Your task to perform on an android device: empty trash in google photos Image 0: 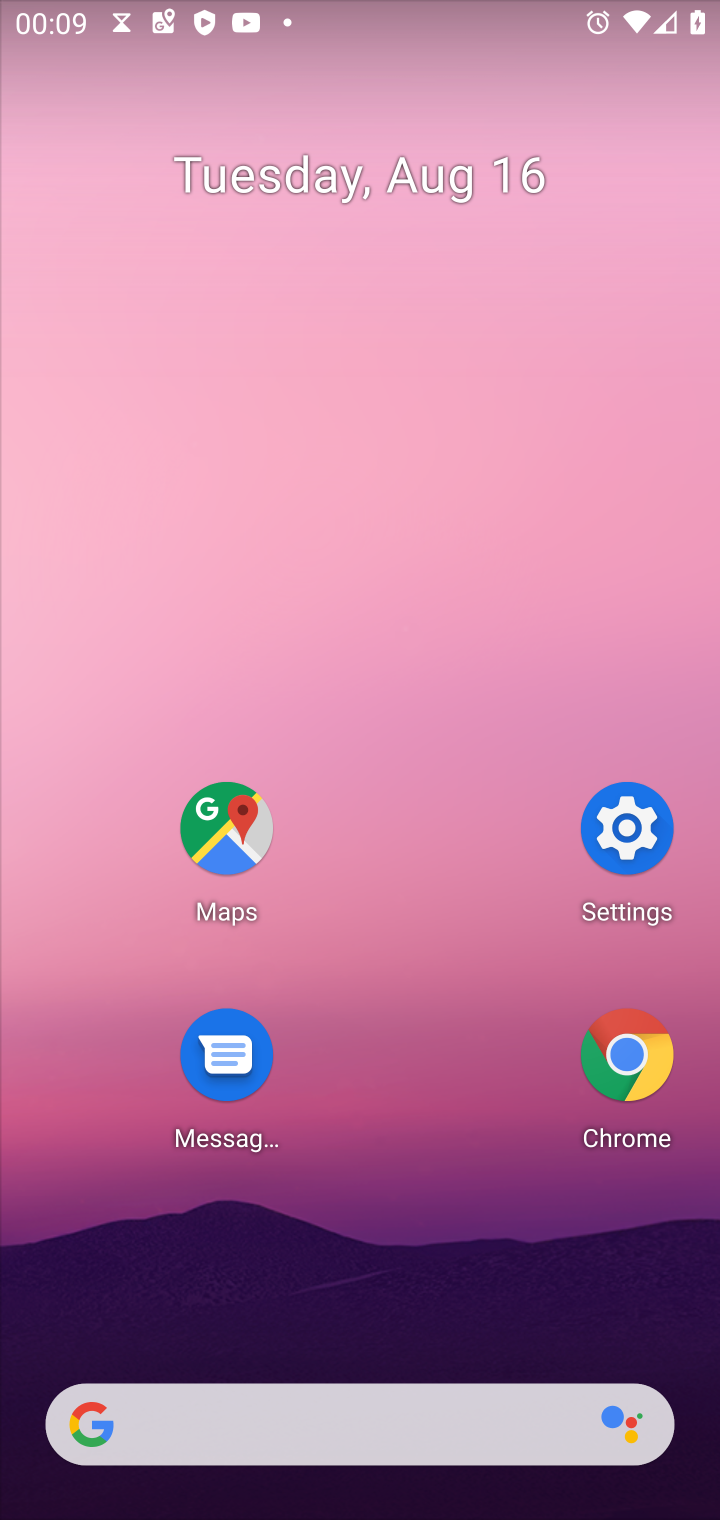
Step 0: press home button
Your task to perform on an android device: empty trash in google photos Image 1: 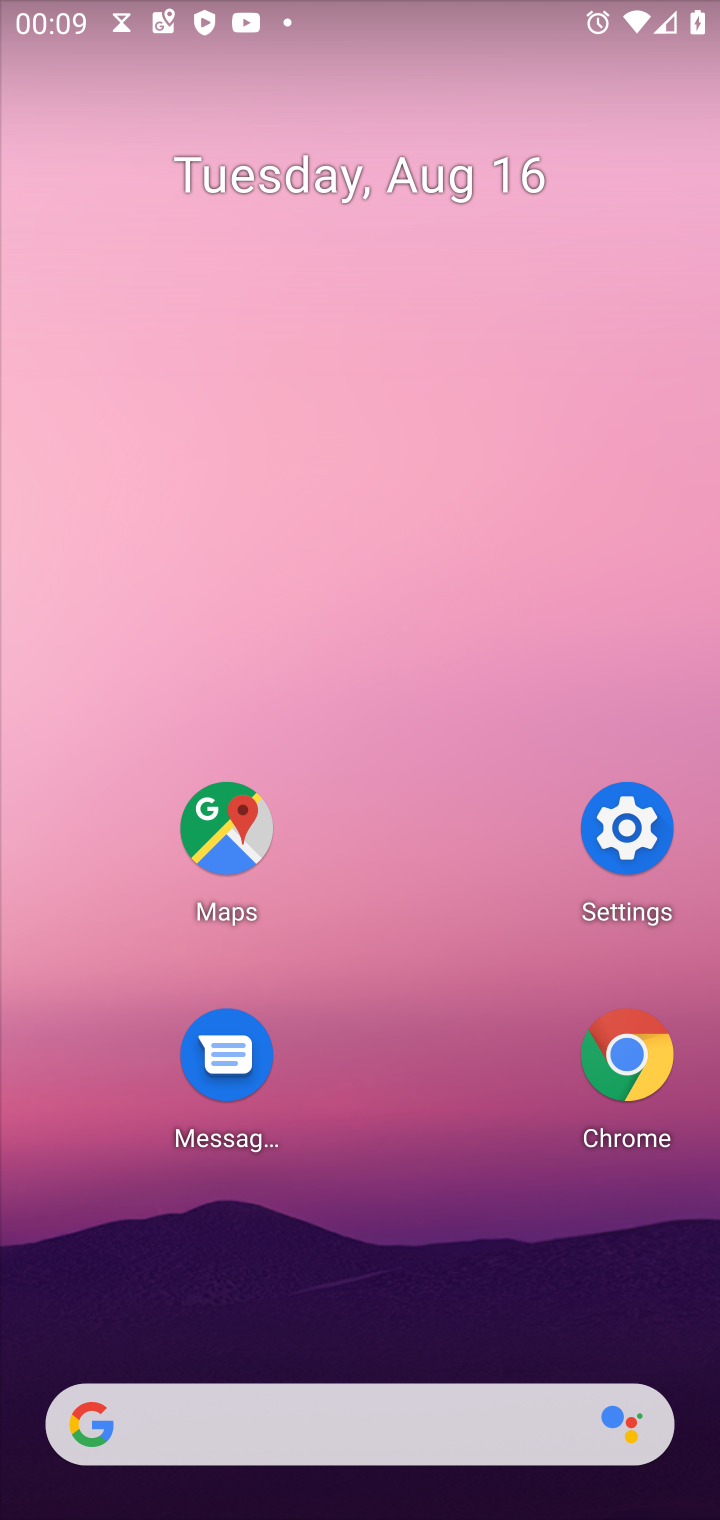
Step 1: drag from (376, 1268) to (562, 123)
Your task to perform on an android device: empty trash in google photos Image 2: 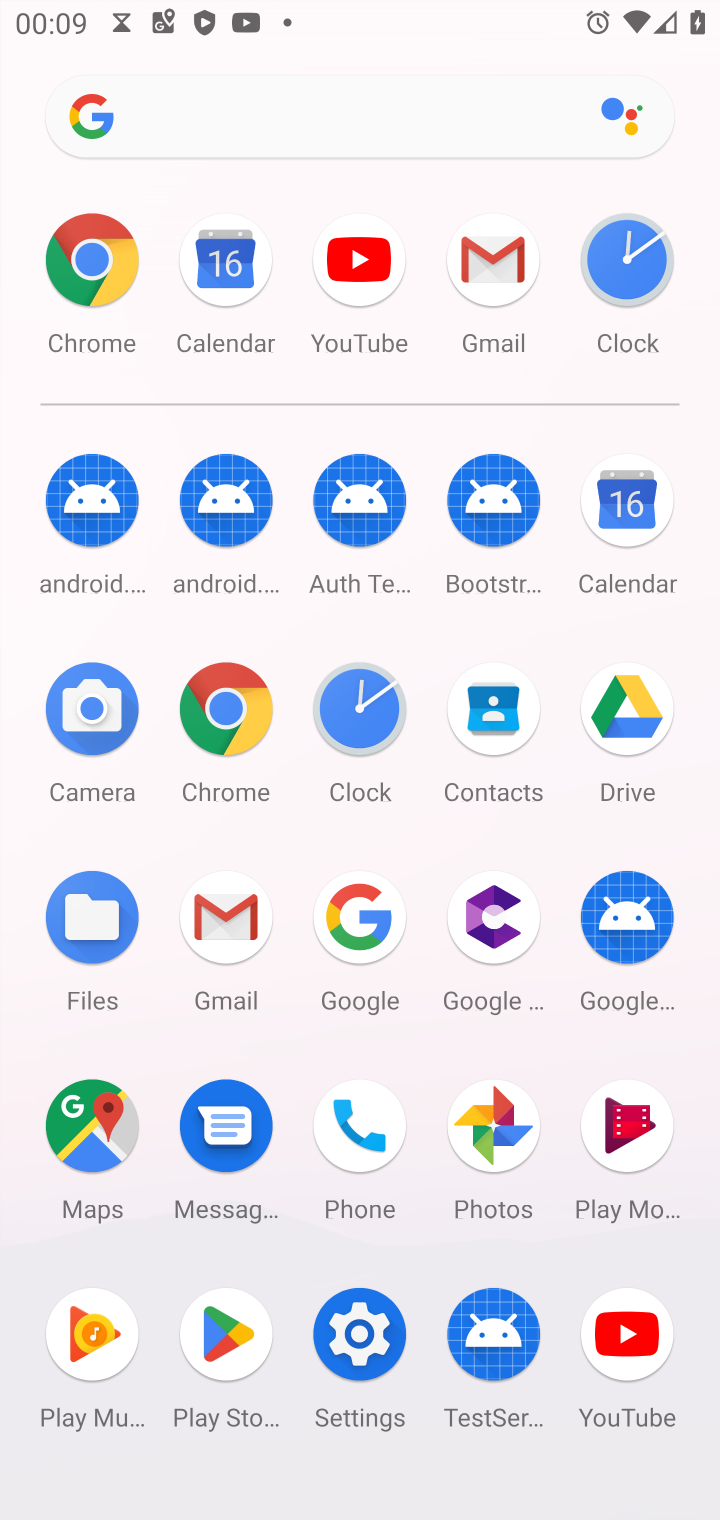
Step 2: click (493, 1127)
Your task to perform on an android device: empty trash in google photos Image 3: 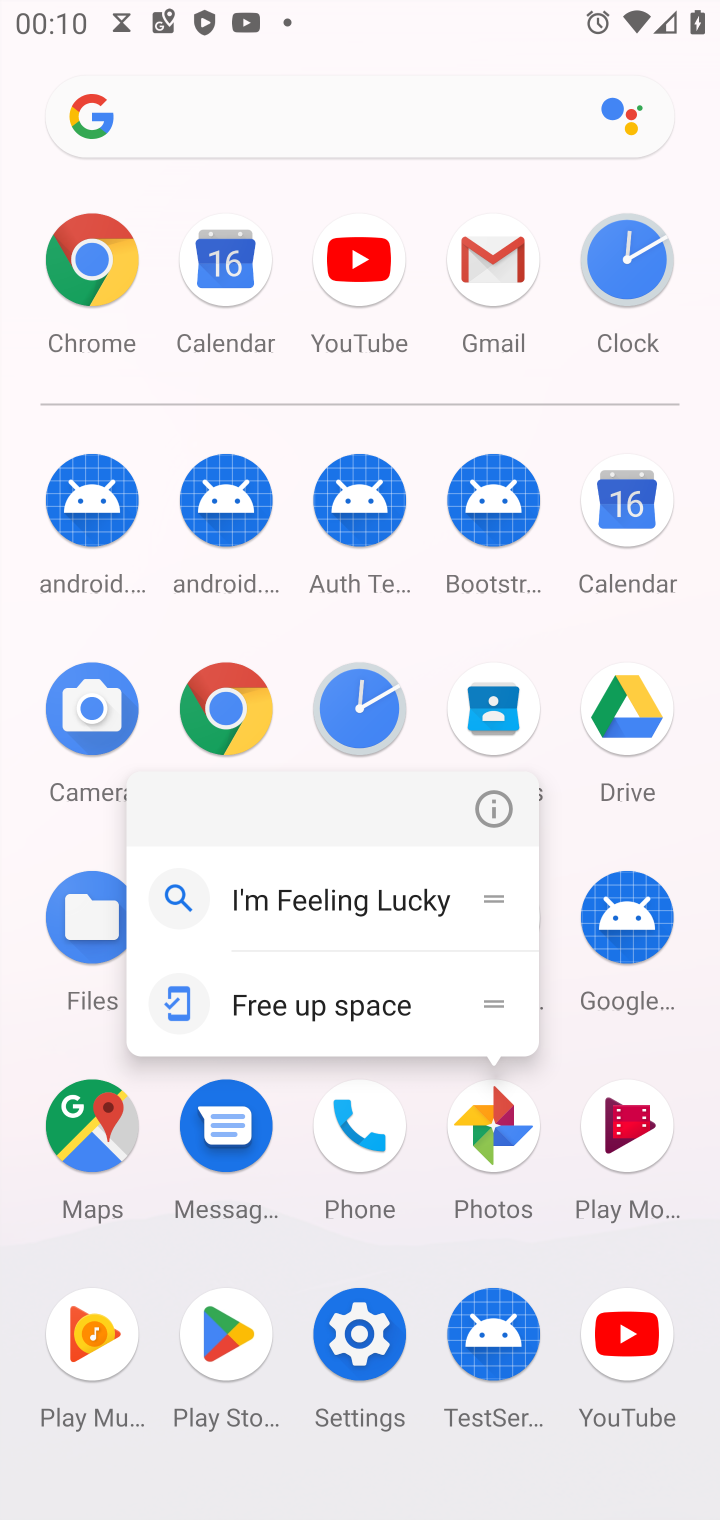
Step 3: click (493, 1130)
Your task to perform on an android device: empty trash in google photos Image 4: 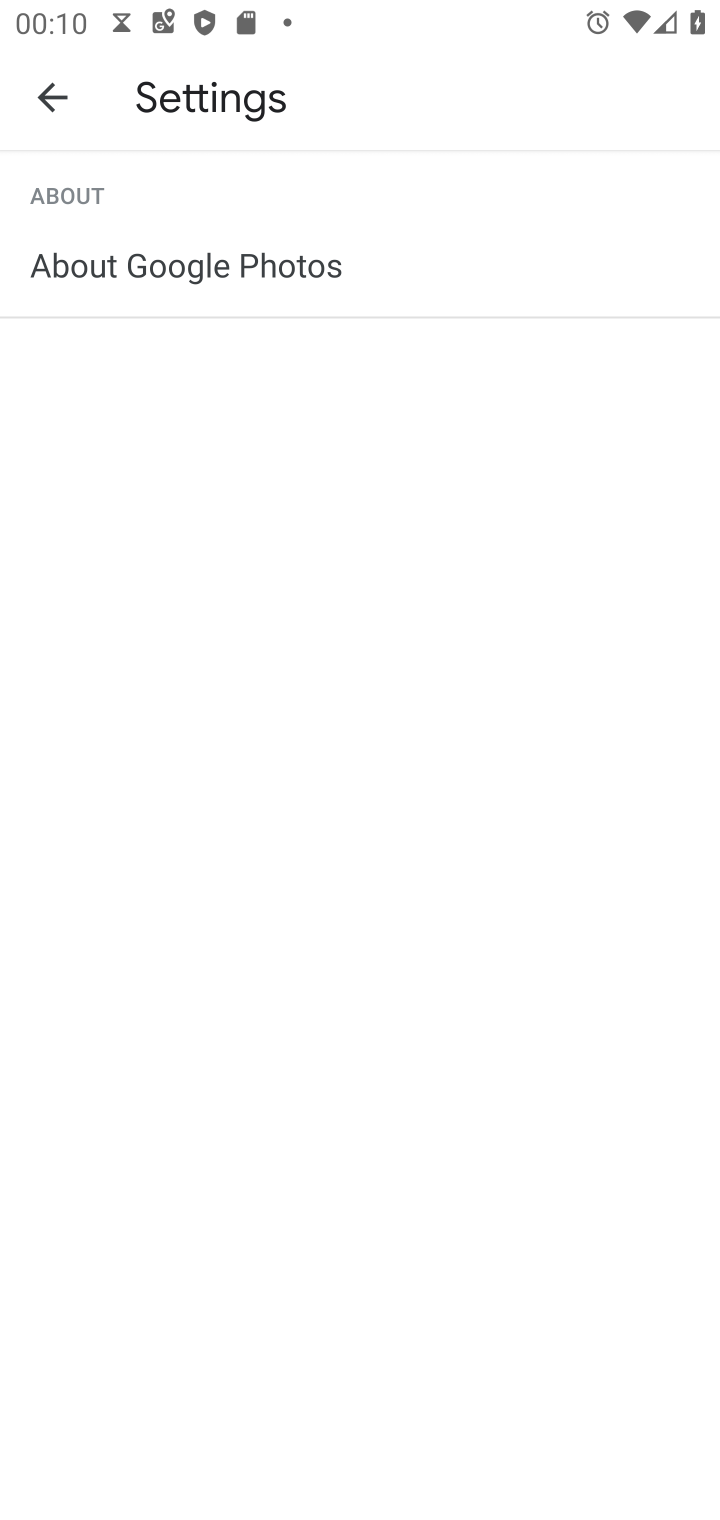
Step 4: press back button
Your task to perform on an android device: empty trash in google photos Image 5: 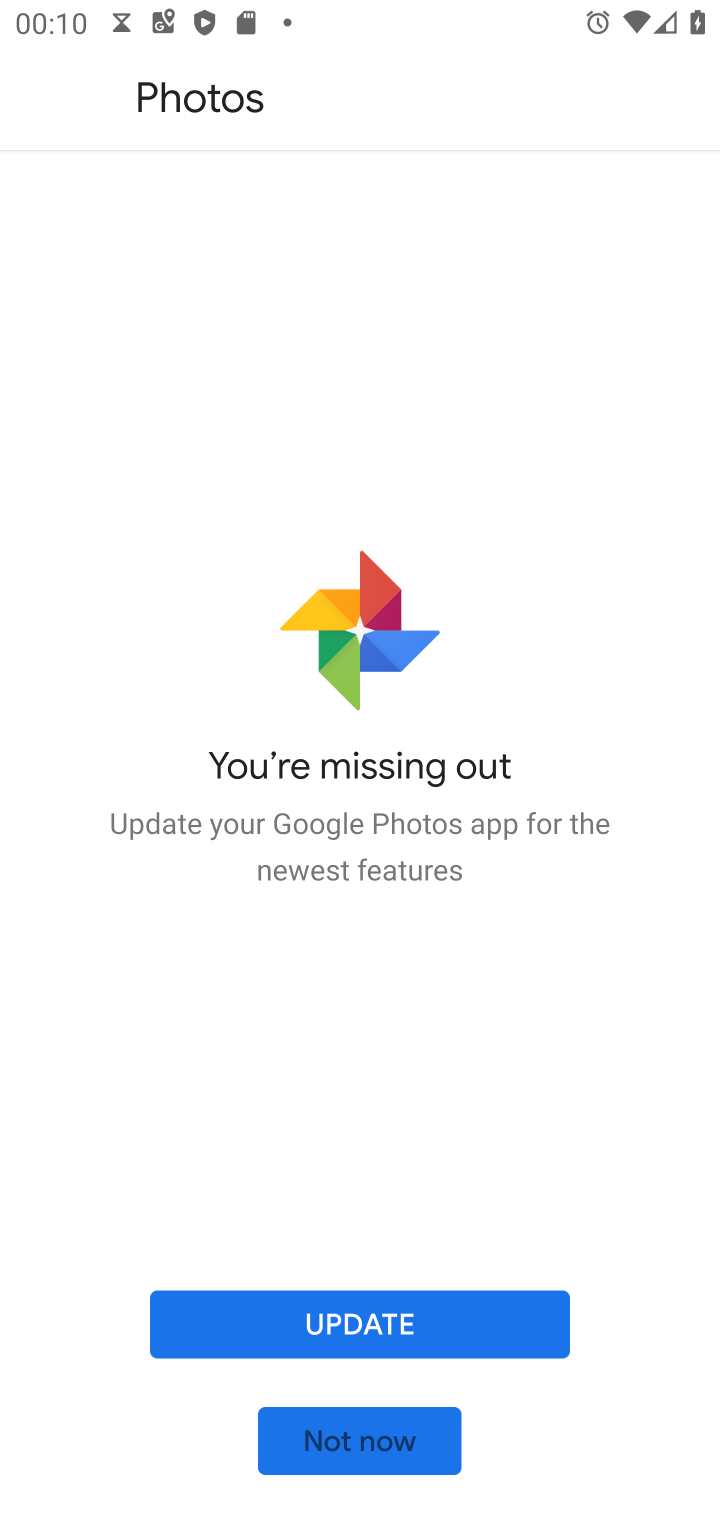
Step 5: click (346, 1317)
Your task to perform on an android device: empty trash in google photos Image 6: 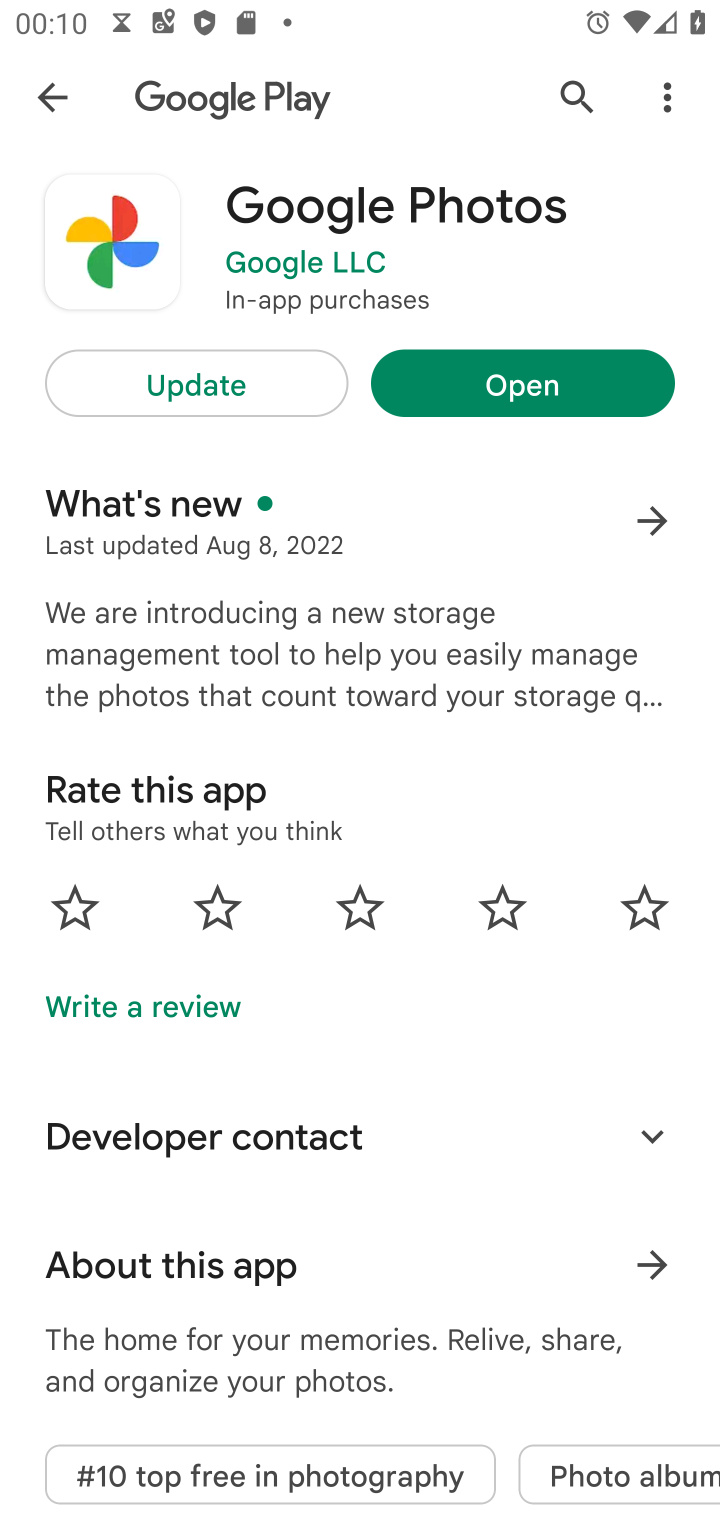
Step 6: click (222, 381)
Your task to perform on an android device: empty trash in google photos Image 7: 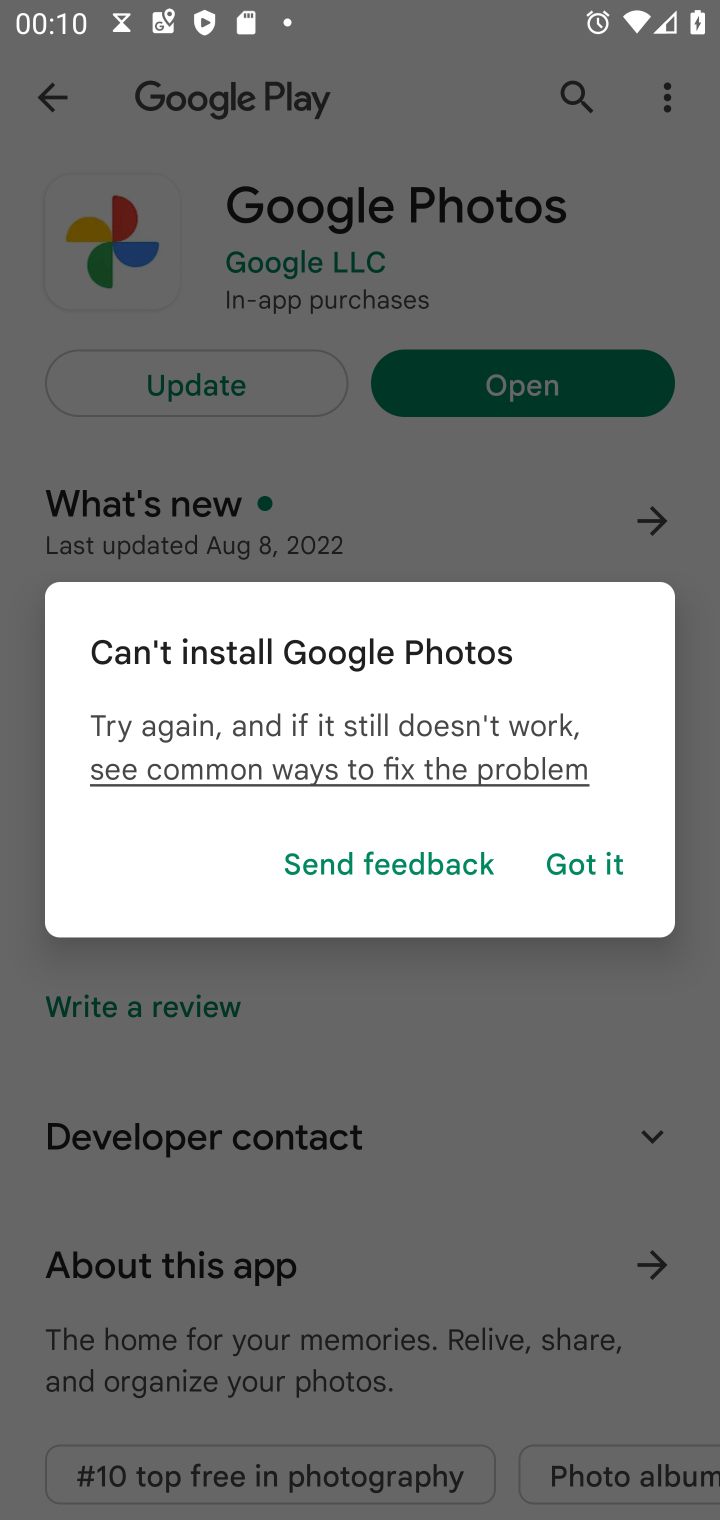
Step 7: click (562, 864)
Your task to perform on an android device: empty trash in google photos Image 8: 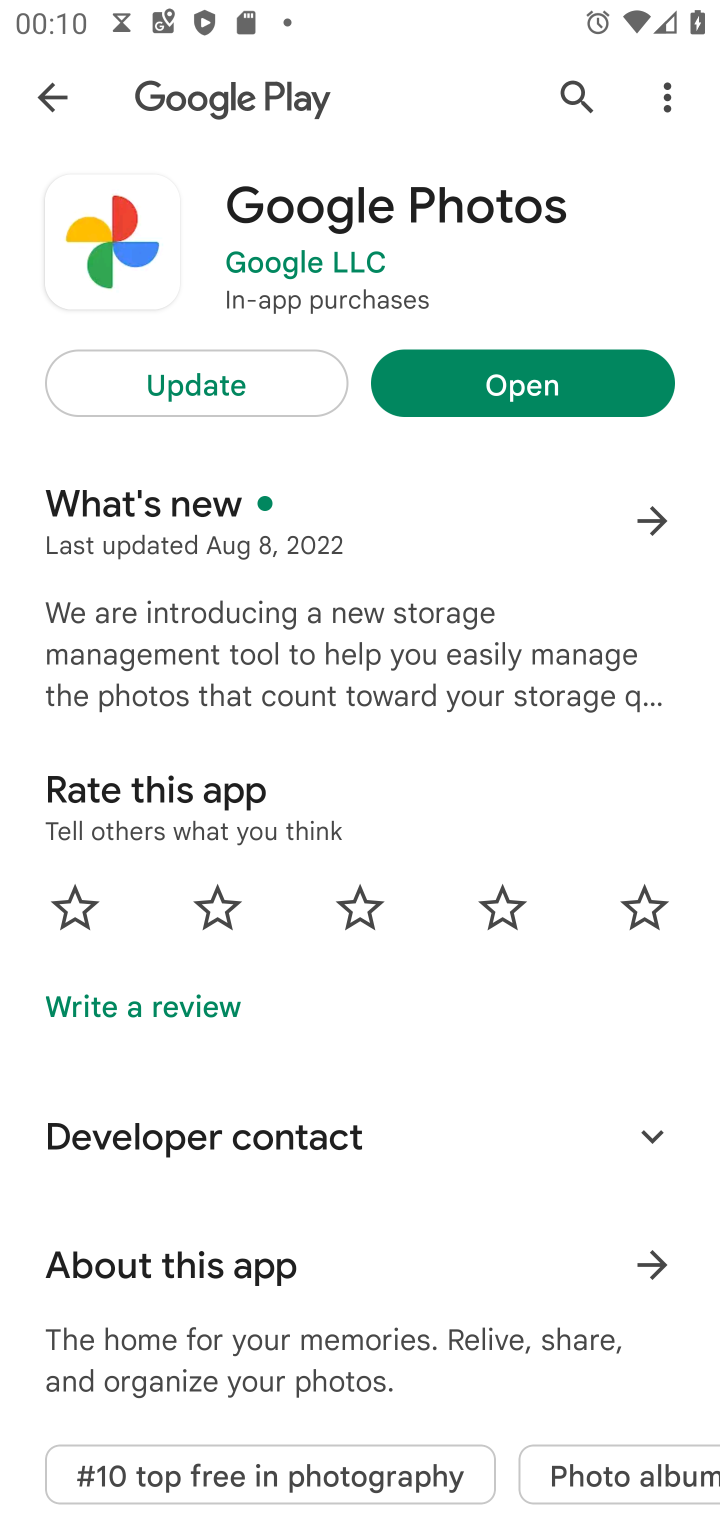
Step 8: click (555, 373)
Your task to perform on an android device: empty trash in google photos Image 9: 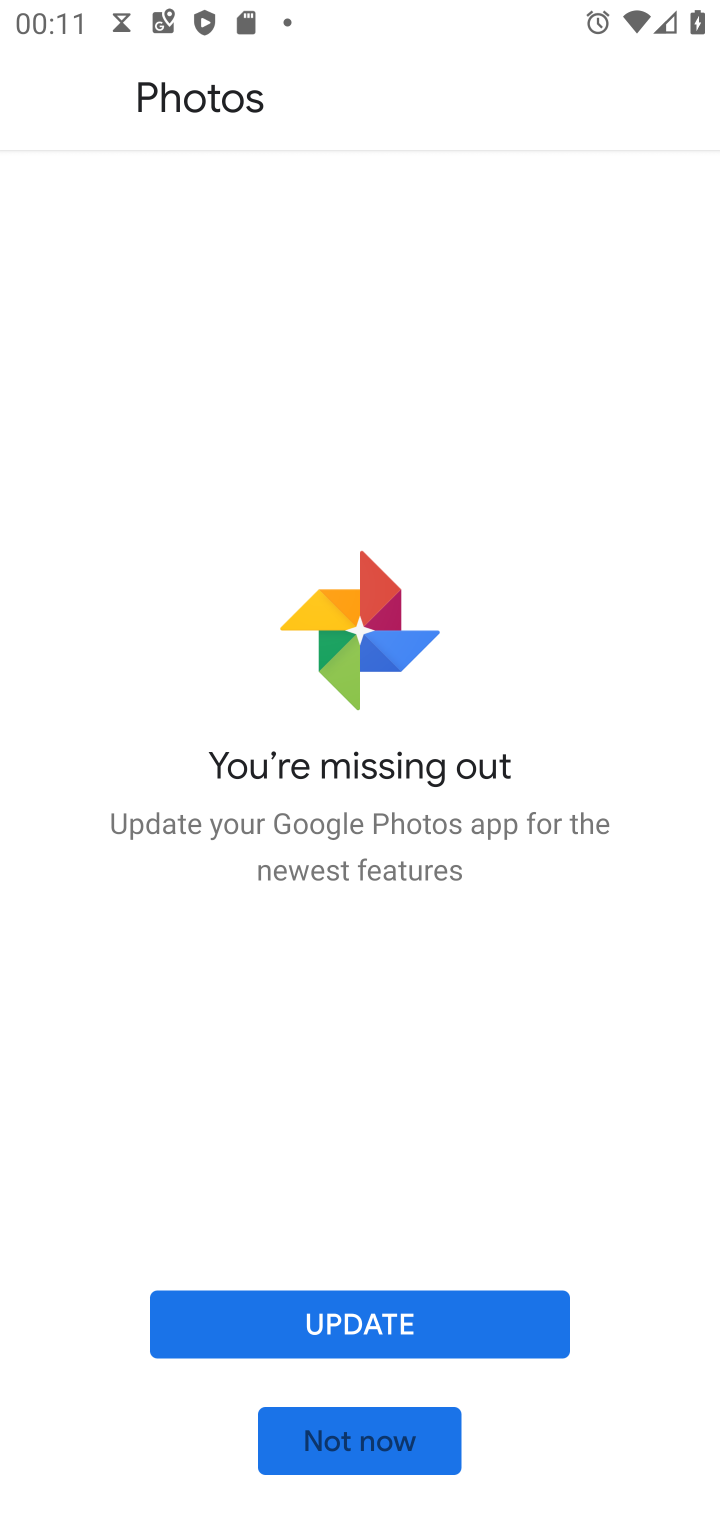
Step 9: task complete